Your task to perform on an android device: Open the phone app and click the voicemail tab. Image 0: 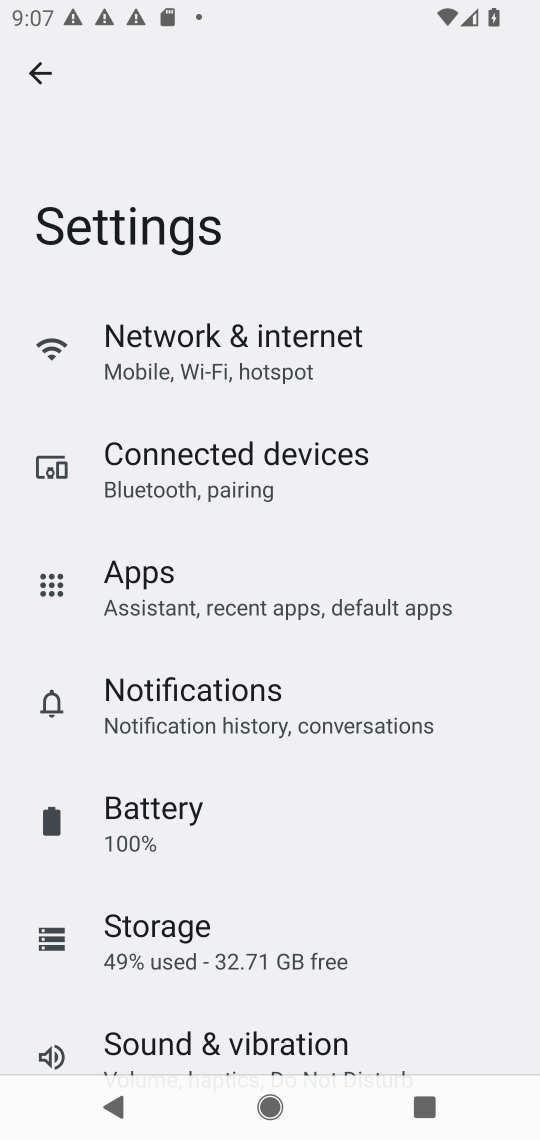
Step 0: press home button
Your task to perform on an android device: Open the phone app and click the voicemail tab. Image 1: 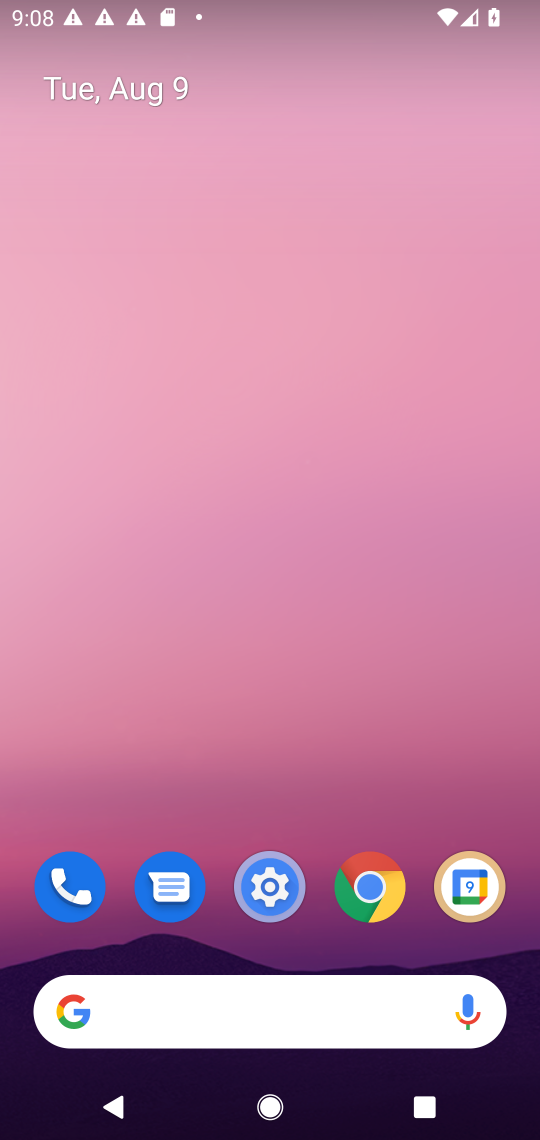
Step 1: drag from (295, 649) to (298, 187)
Your task to perform on an android device: Open the phone app and click the voicemail tab. Image 2: 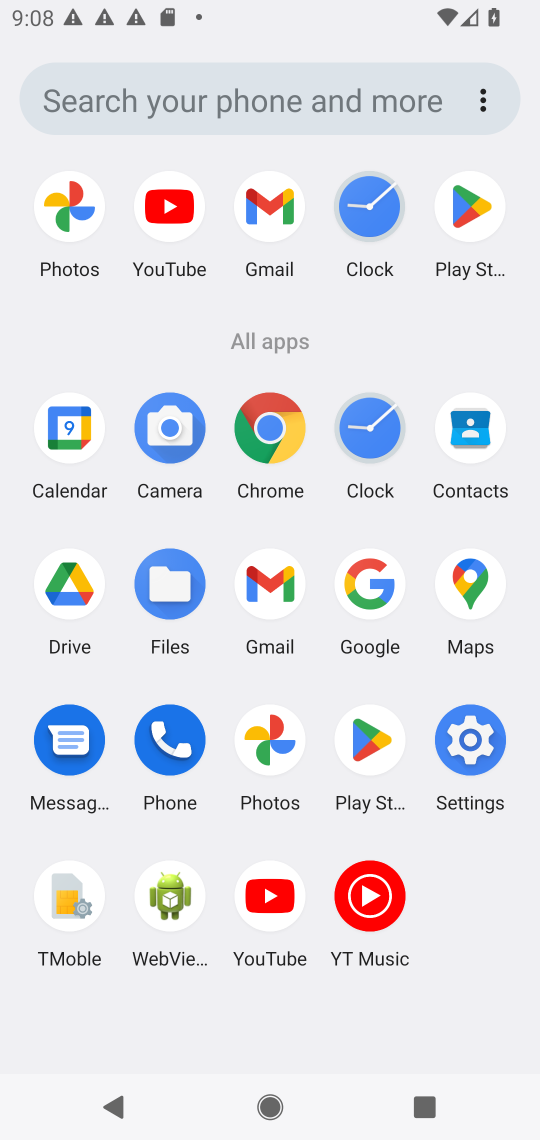
Step 2: click (173, 739)
Your task to perform on an android device: Open the phone app and click the voicemail tab. Image 3: 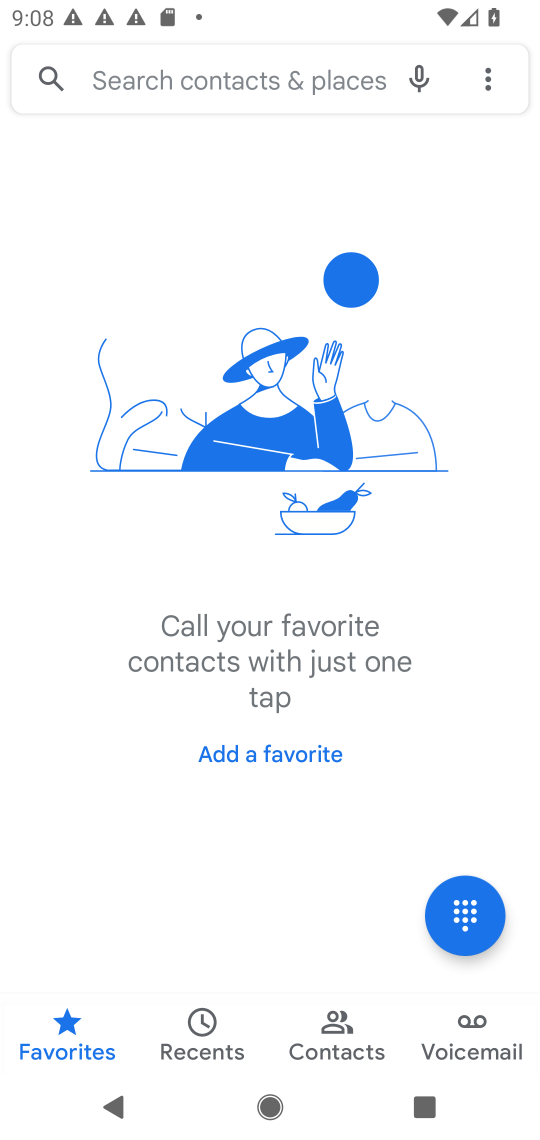
Step 3: click (469, 1033)
Your task to perform on an android device: Open the phone app and click the voicemail tab. Image 4: 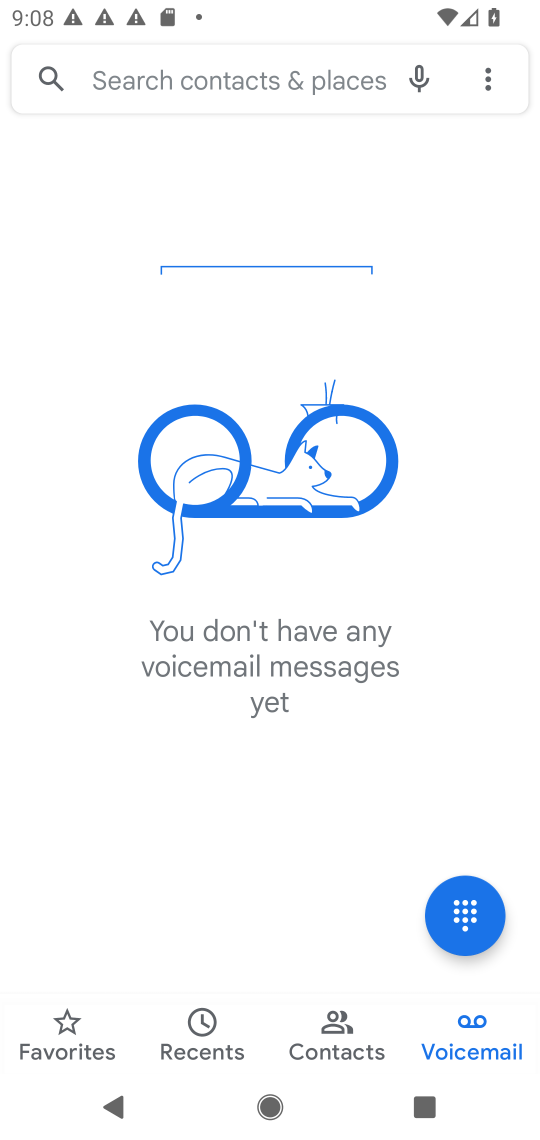
Step 4: task complete